Your task to perform on an android device: Go to eBay Image 0: 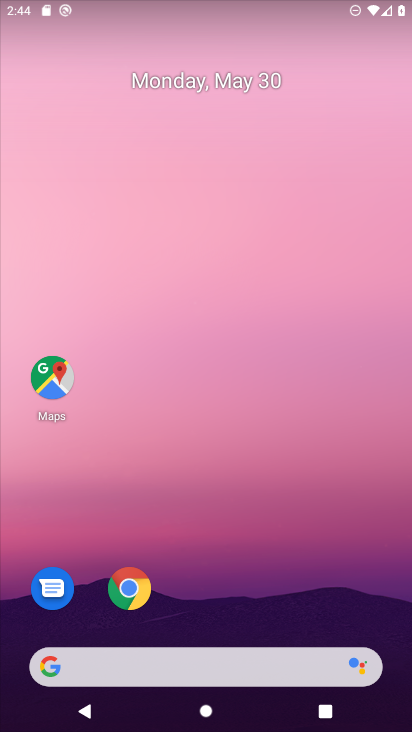
Step 0: click (226, 198)
Your task to perform on an android device: Go to eBay Image 1: 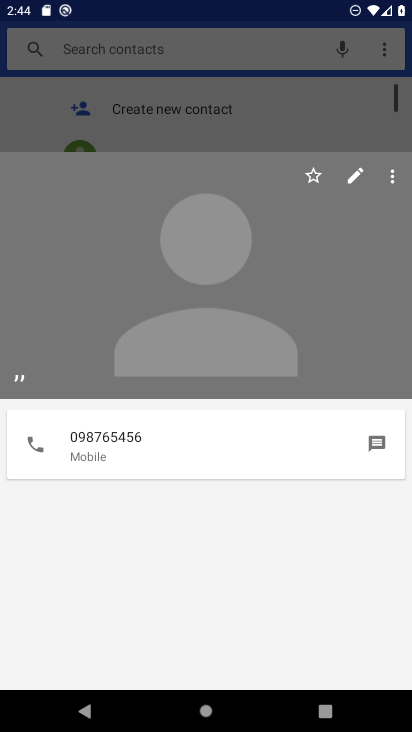
Step 1: press home button
Your task to perform on an android device: Go to eBay Image 2: 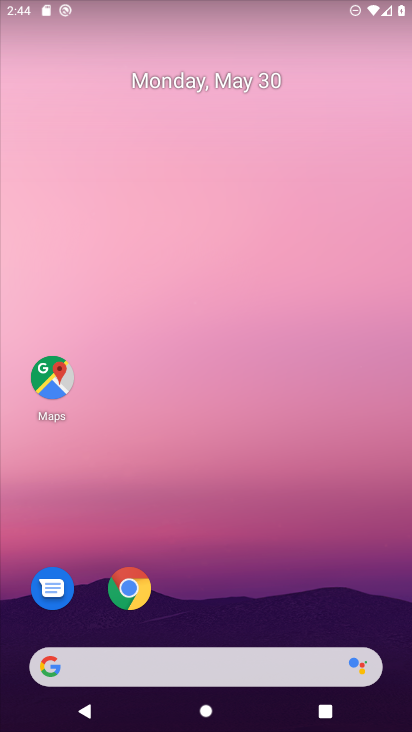
Step 2: click (131, 579)
Your task to perform on an android device: Go to eBay Image 3: 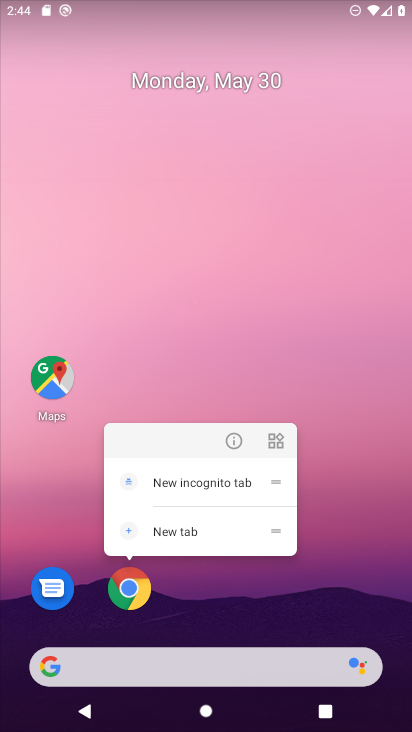
Step 3: click (122, 582)
Your task to perform on an android device: Go to eBay Image 4: 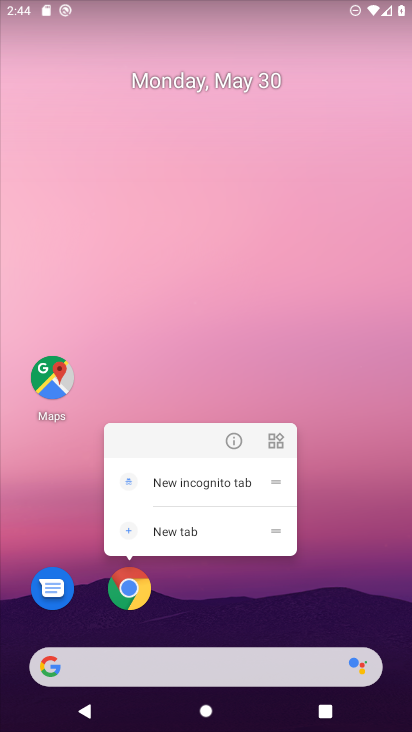
Step 4: click (120, 578)
Your task to perform on an android device: Go to eBay Image 5: 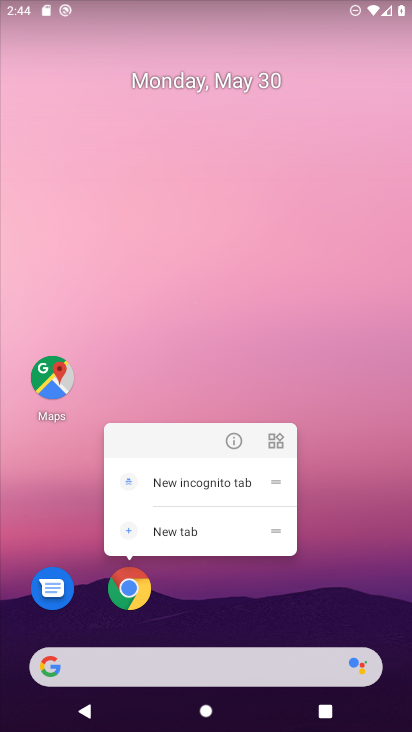
Step 5: click (129, 590)
Your task to perform on an android device: Go to eBay Image 6: 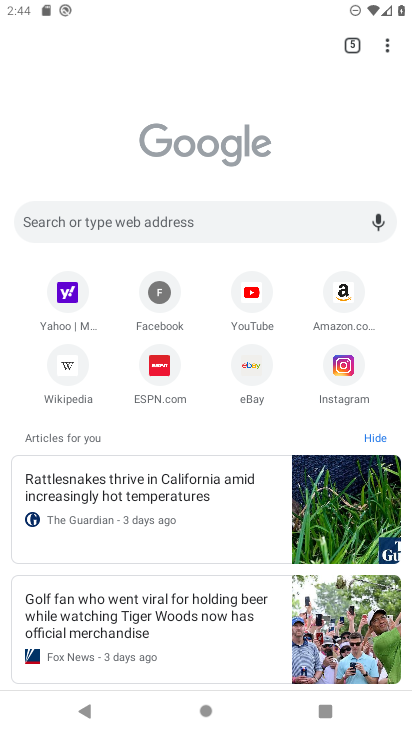
Step 6: click (239, 368)
Your task to perform on an android device: Go to eBay Image 7: 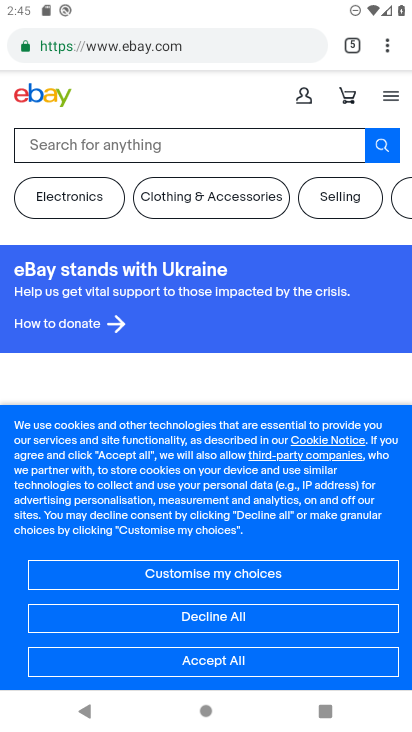
Step 7: task complete